Your task to perform on an android device: turn on location history Image 0: 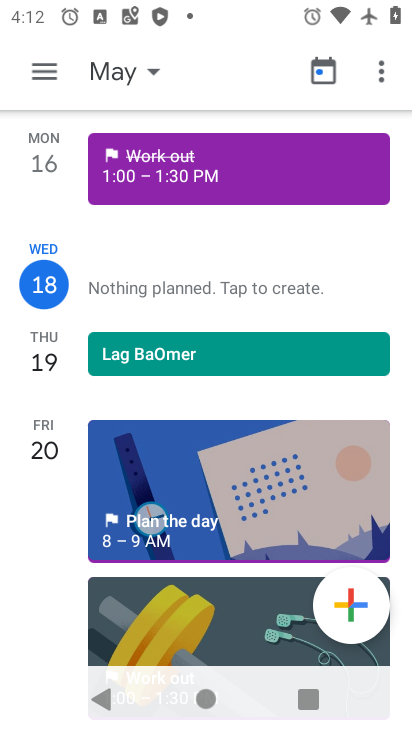
Step 0: press home button
Your task to perform on an android device: turn on location history Image 1: 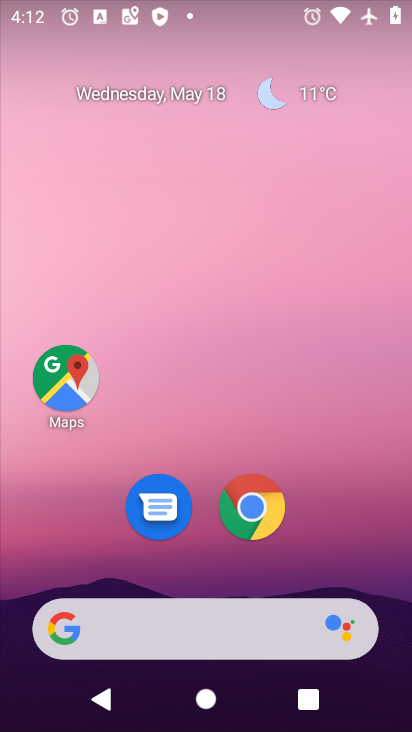
Step 1: click (64, 377)
Your task to perform on an android device: turn on location history Image 2: 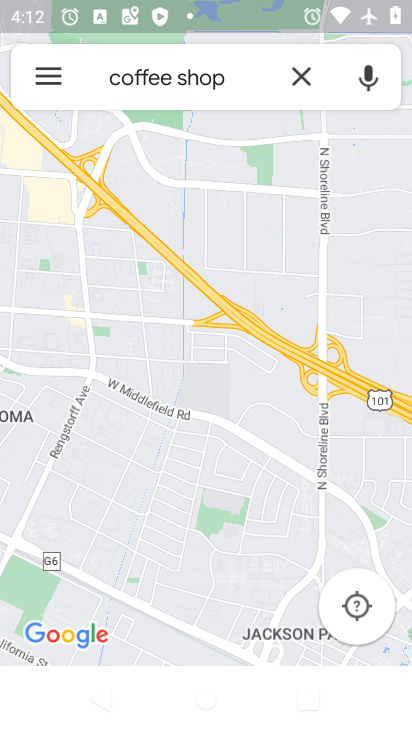
Step 2: click (48, 71)
Your task to perform on an android device: turn on location history Image 3: 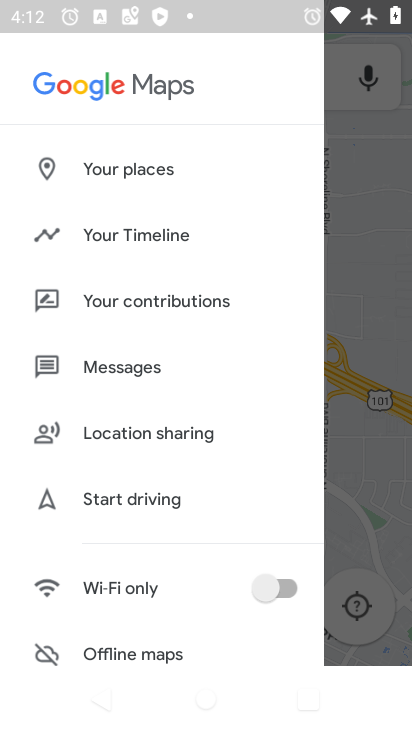
Step 3: drag from (197, 596) to (258, 245)
Your task to perform on an android device: turn on location history Image 4: 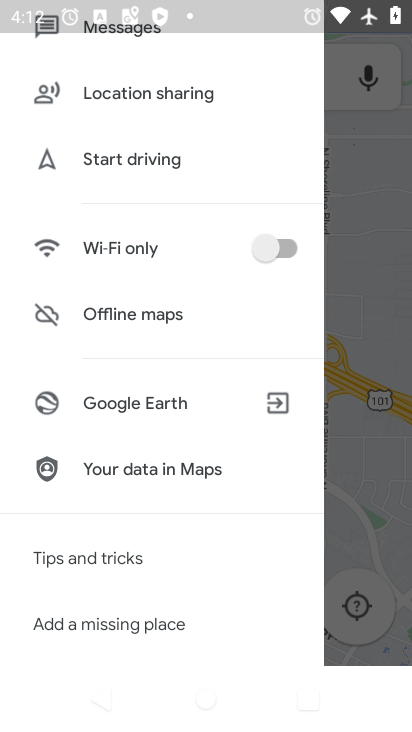
Step 4: drag from (221, 637) to (218, 272)
Your task to perform on an android device: turn on location history Image 5: 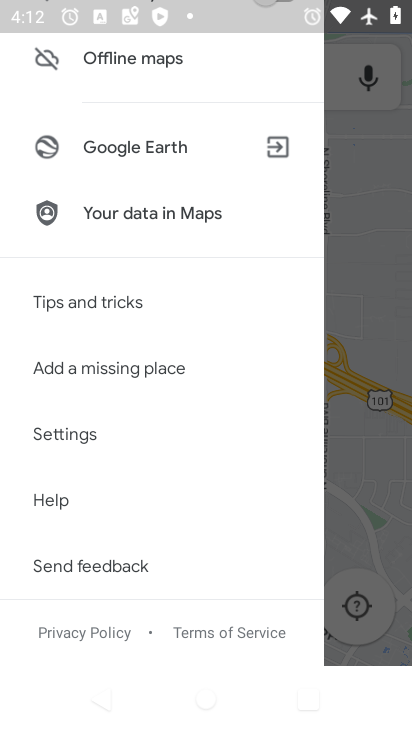
Step 5: click (39, 427)
Your task to perform on an android device: turn on location history Image 6: 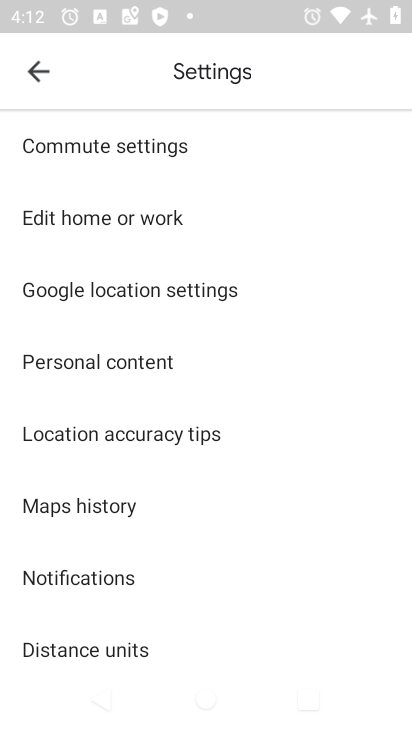
Step 6: click (95, 362)
Your task to perform on an android device: turn on location history Image 7: 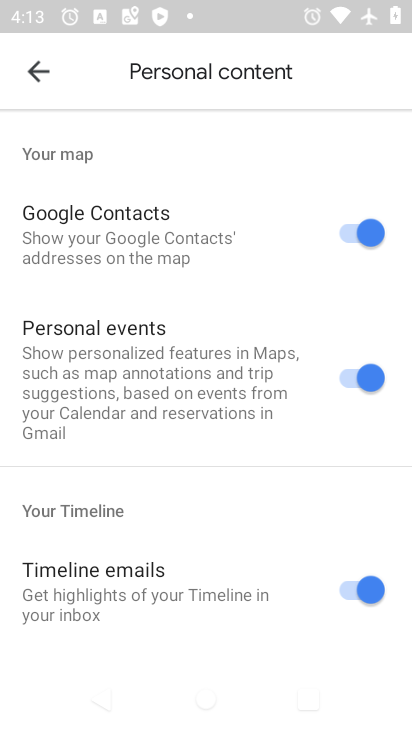
Step 7: drag from (314, 574) to (285, 180)
Your task to perform on an android device: turn on location history Image 8: 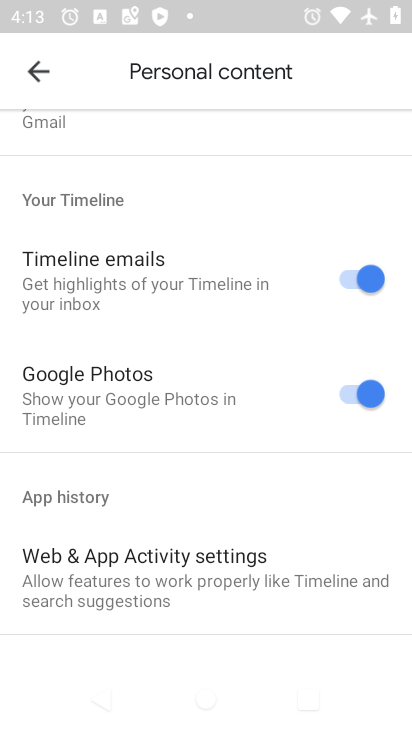
Step 8: drag from (316, 574) to (298, 221)
Your task to perform on an android device: turn on location history Image 9: 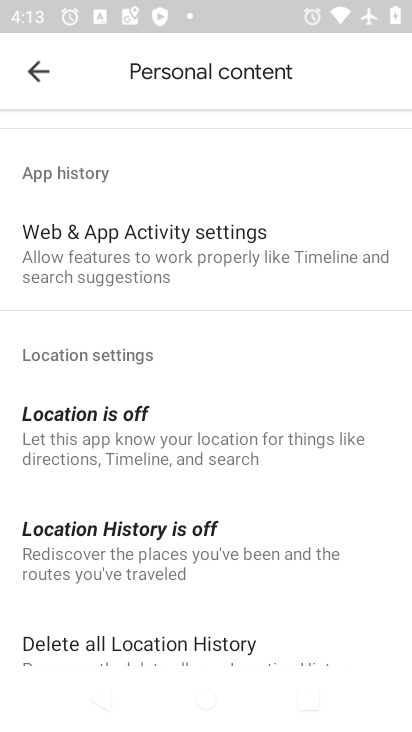
Step 9: click (103, 537)
Your task to perform on an android device: turn on location history Image 10: 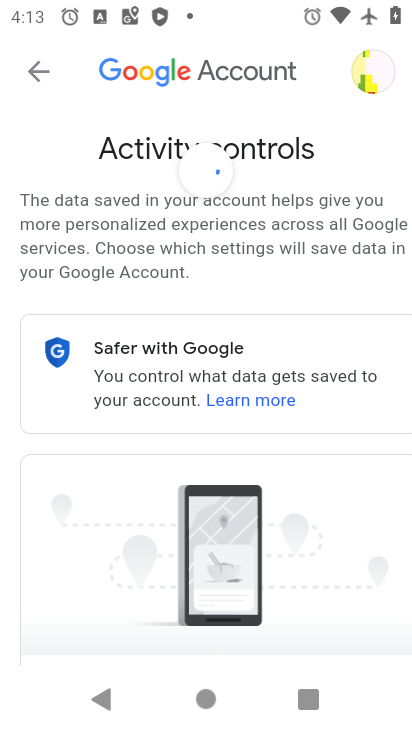
Step 10: drag from (285, 580) to (301, 141)
Your task to perform on an android device: turn on location history Image 11: 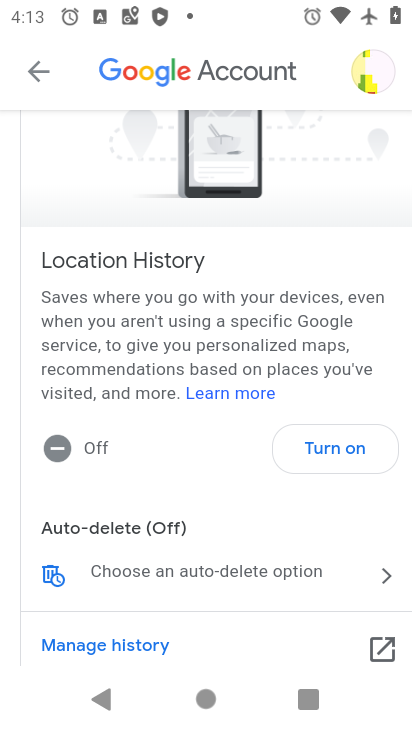
Step 11: click (334, 453)
Your task to perform on an android device: turn on location history Image 12: 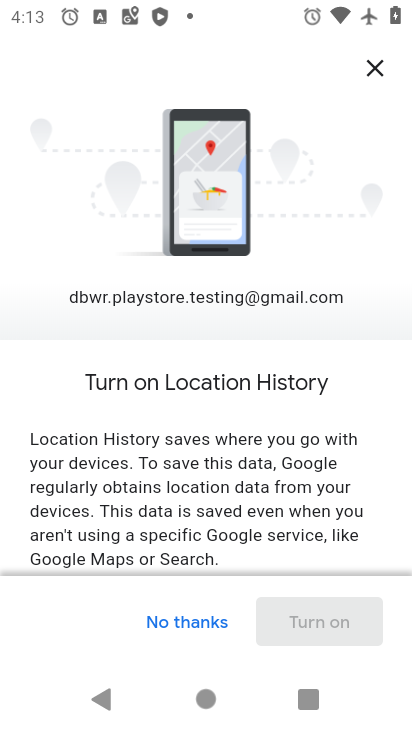
Step 12: drag from (278, 525) to (316, 140)
Your task to perform on an android device: turn on location history Image 13: 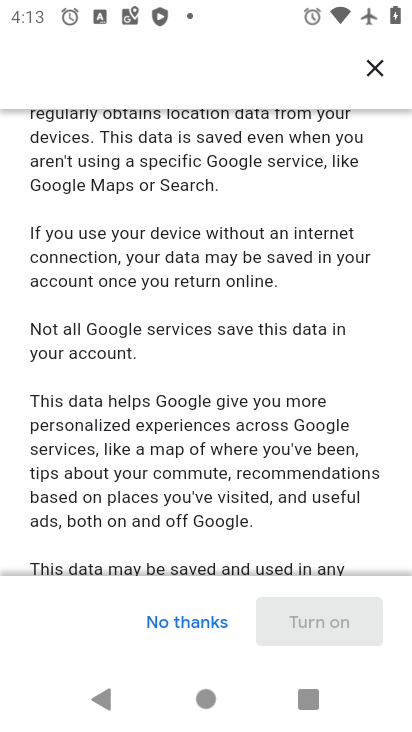
Step 13: drag from (297, 518) to (317, 135)
Your task to perform on an android device: turn on location history Image 14: 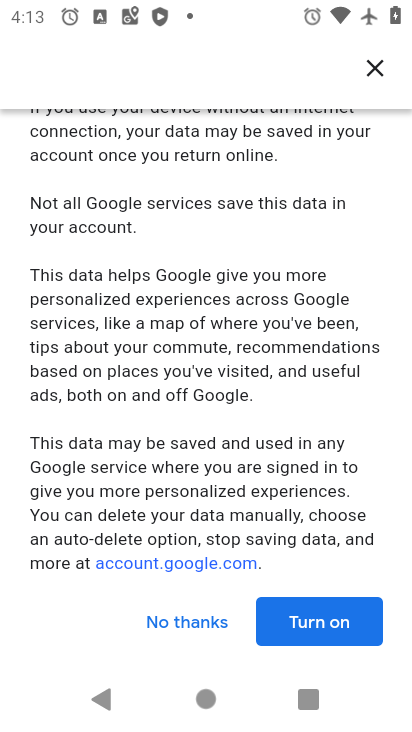
Step 14: click (321, 622)
Your task to perform on an android device: turn on location history Image 15: 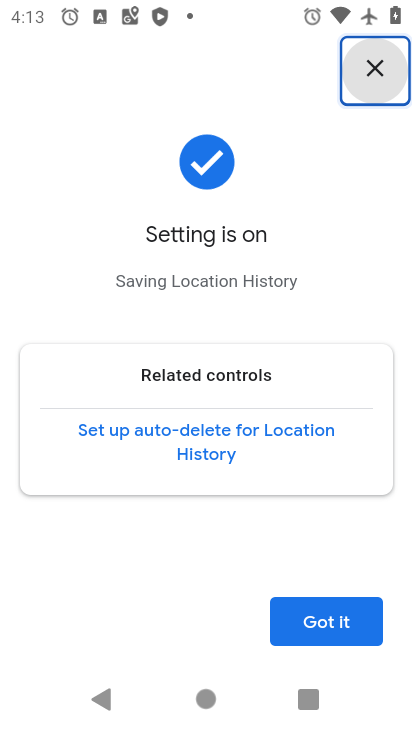
Step 15: click (321, 624)
Your task to perform on an android device: turn on location history Image 16: 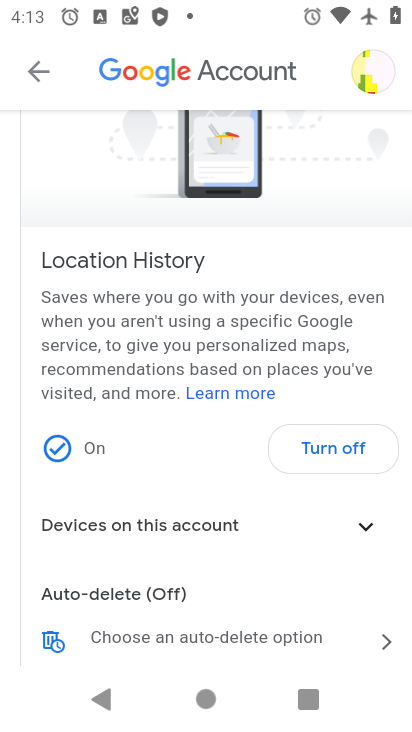
Step 16: task complete